Your task to perform on an android device: Open settings on Google Maps Image 0: 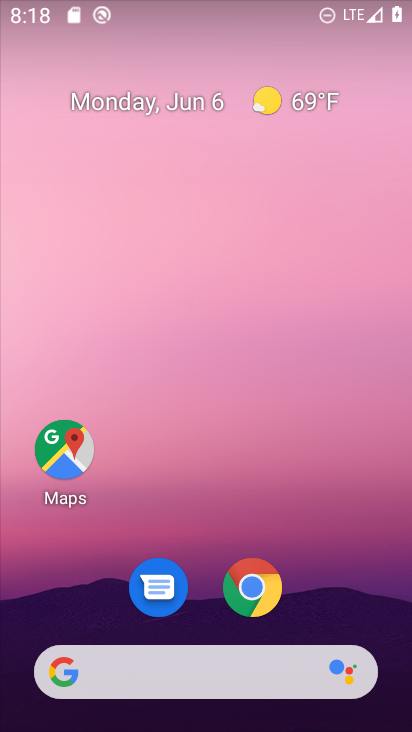
Step 0: click (252, 589)
Your task to perform on an android device: Open settings on Google Maps Image 1: 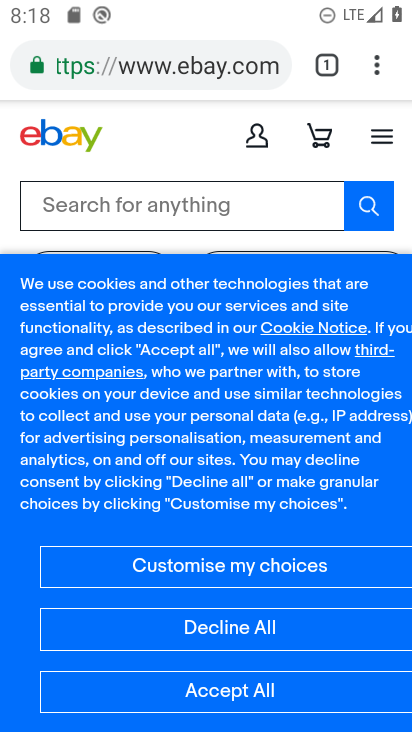
Step 1: press home button
Your task to perform on an android device: Open settings on Google Maps Image 2: 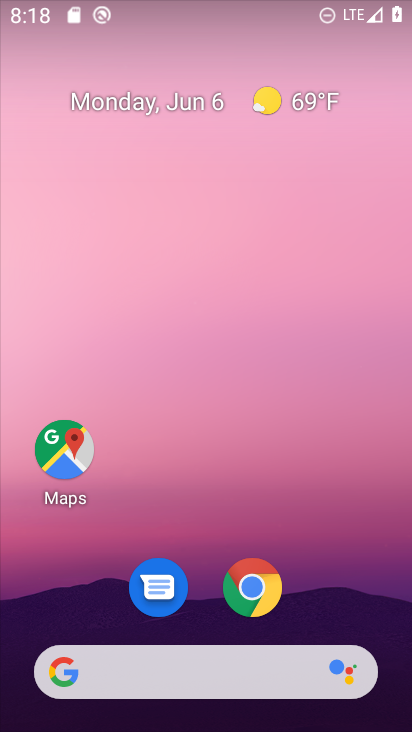
Step 2: click (79, 454)
Your task to perform on an android device: Open settings on Google Maps Image 3: 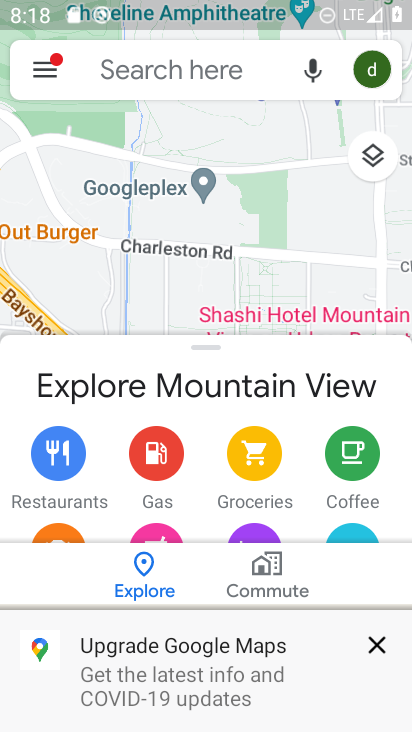
Step 3: task complete